Your task to perform on an android device: Open maps Image 0: 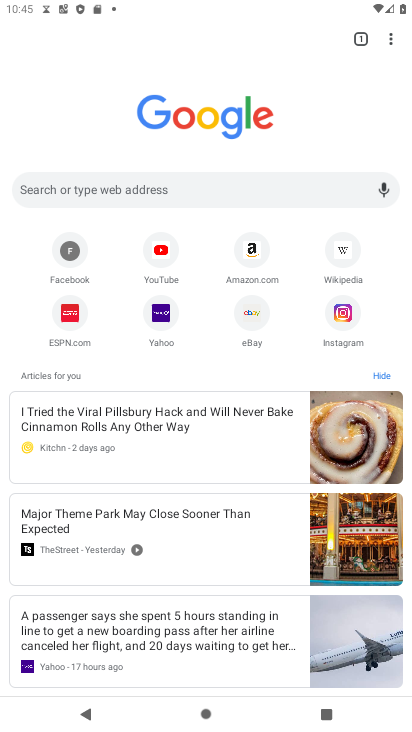
Step 0: press home button
Your task to perform on an android device: Open maps Image 1: 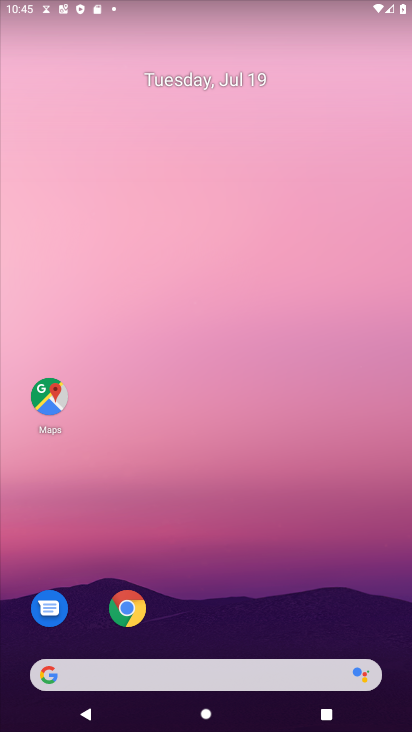
Step 1: click (50, 400)
Your task to perform on an android device: Open maps Image 2: 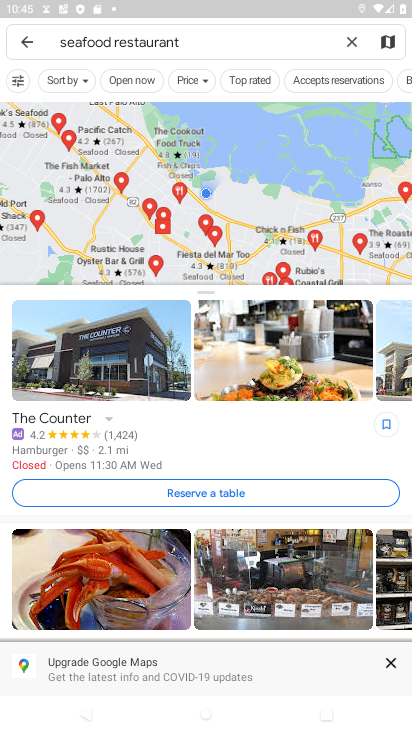
Step 2: task complete